Your task to perform on an android device: Open Google Chrome Image 0: 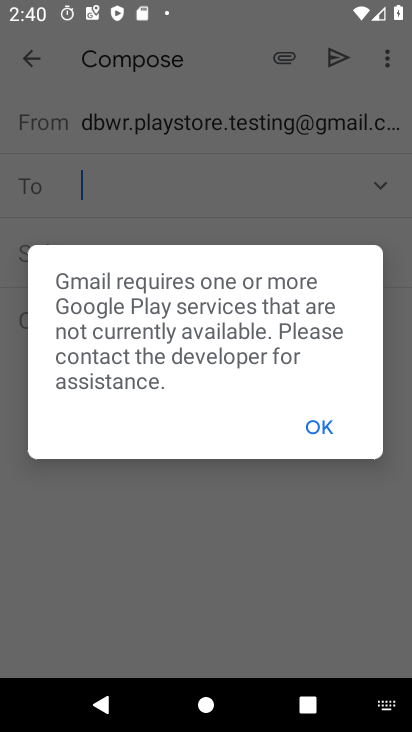
Step 0: press home button
Your task to perform on an android device: Open Google Chrome Image 1: 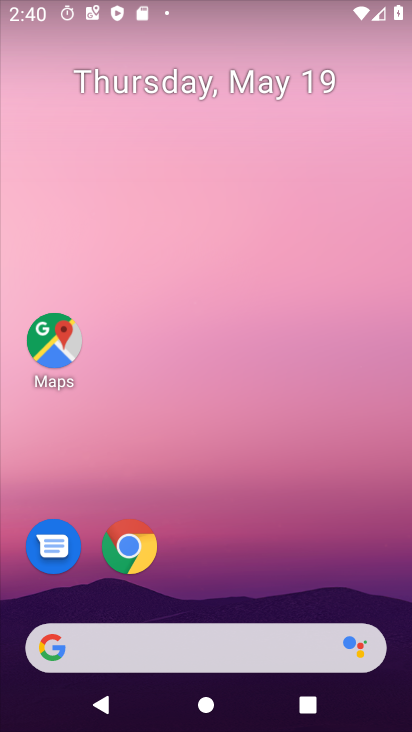
Step 1: click (135, 566)
Your task to perform on an android device: Open Google Chrome Image 2: 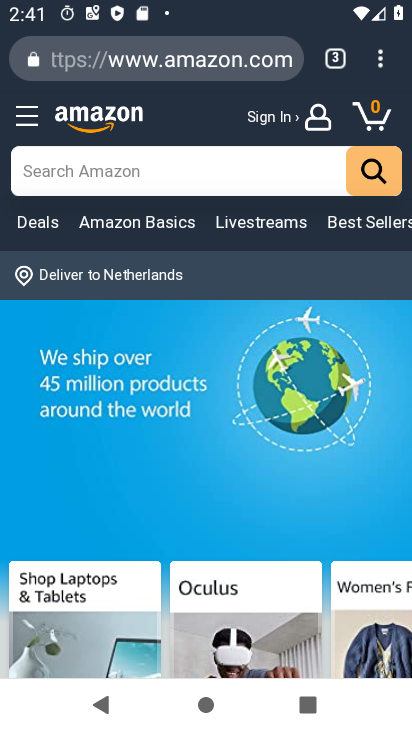
Step 2: task complete